Your task to perform on an android device: Do I have any events tomorrow? Image 0: 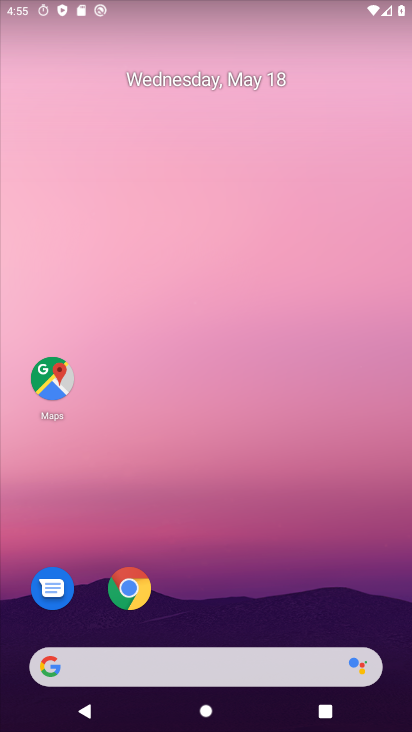
Step 0: drag from (208, 598) to (260, 59)
Your task to perform on an android device: Do I have any events tomorrow? Image 1: 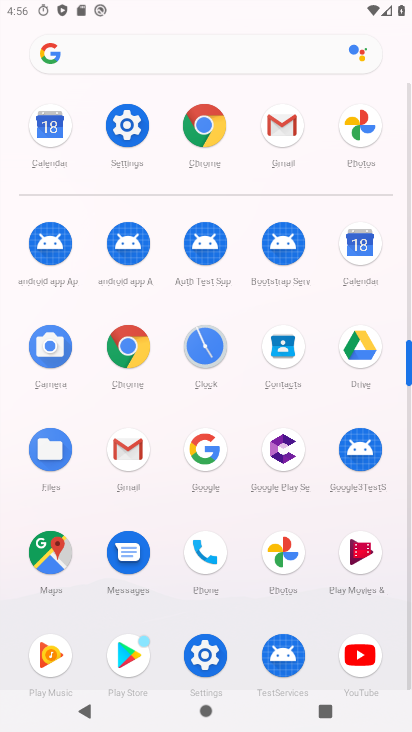
Step 1: click (357, 237)
Your task to perform on an android device: Do I have any events tomorrow? Image 2: 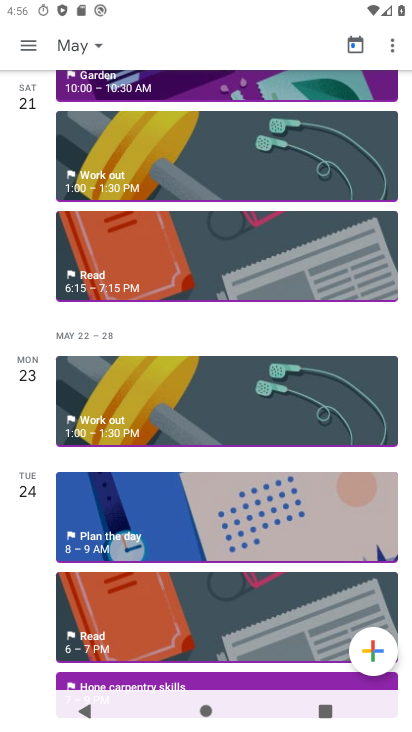
Step 2: click (72, 40)
Your task to perform on an android device: Do I have any events tomorrow? Image 3: 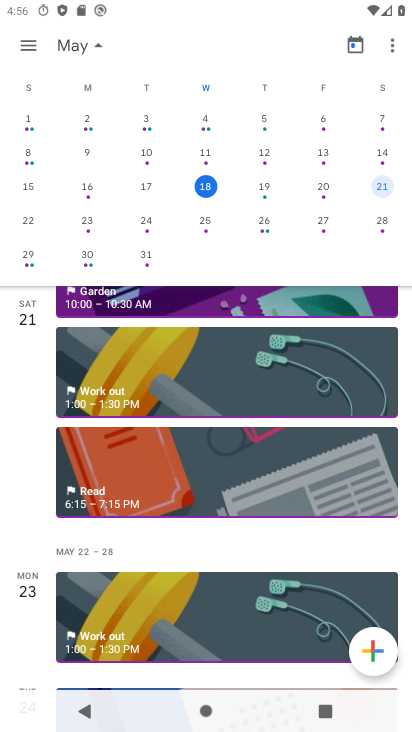
Step 3: click (260, 188)
Your task to perform on an android device: Do I have any events tomorrow? Image 4: 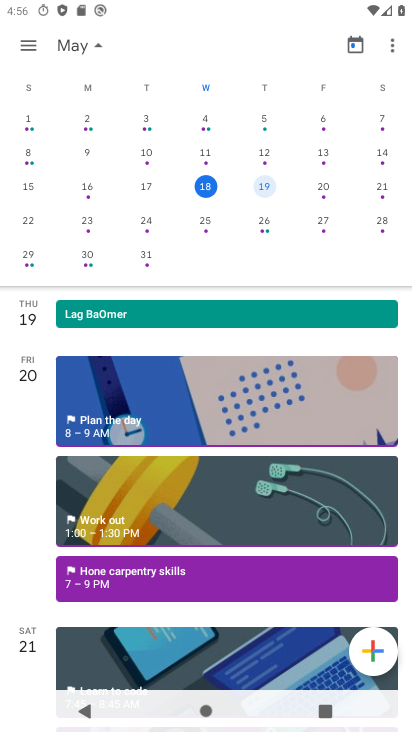
Step 4: task complete